Your task to perform on an android device: View the shopping cart on ebay. Add bose soundlink to the cart on ebay Image 0: 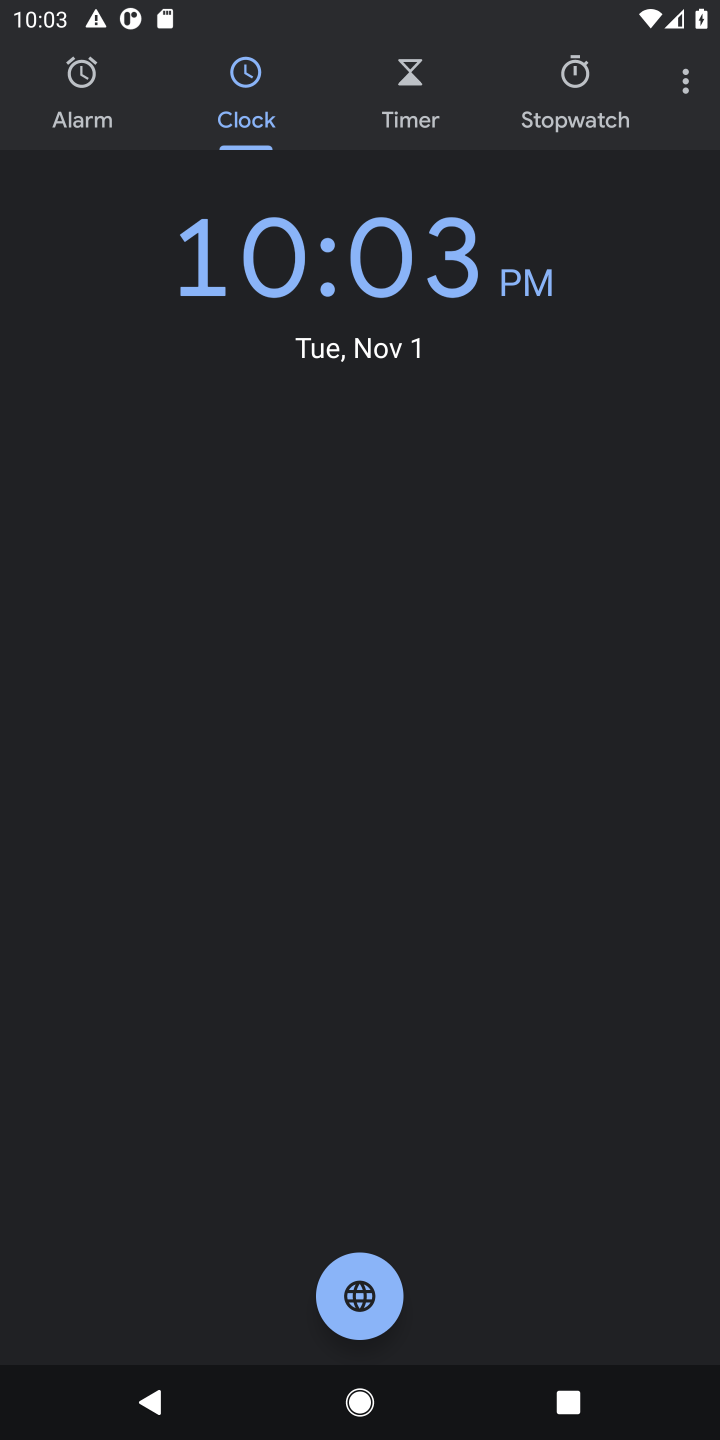
Step 0: press home button
Your task to perform on an android device: View the shopping cart on ebay. Add bose soundlink to the cart on ebay Image 1: 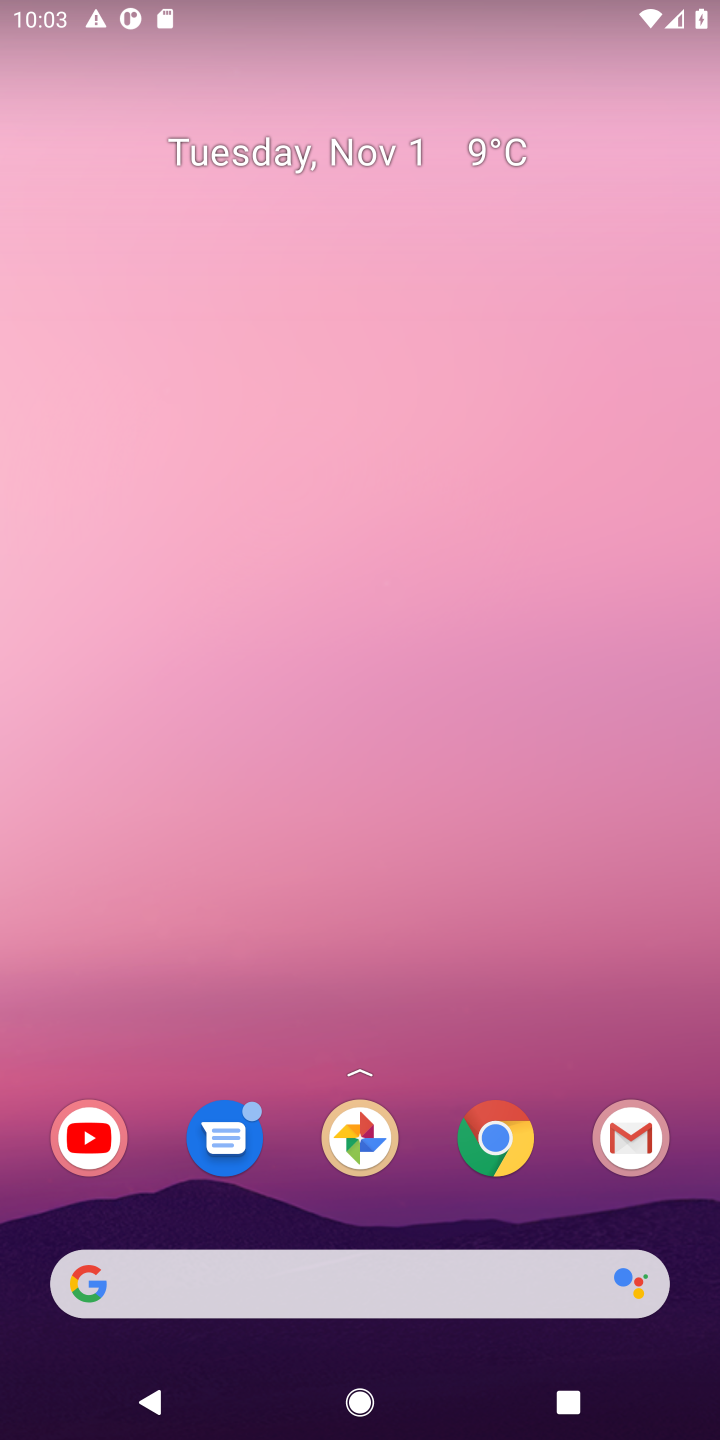
Step 1: drag from (449, 987) to (548, 238)
Your task to perform on an android device: View the shopping cart on ebay. Add bose soundlink to the cart on ebay Image 2: 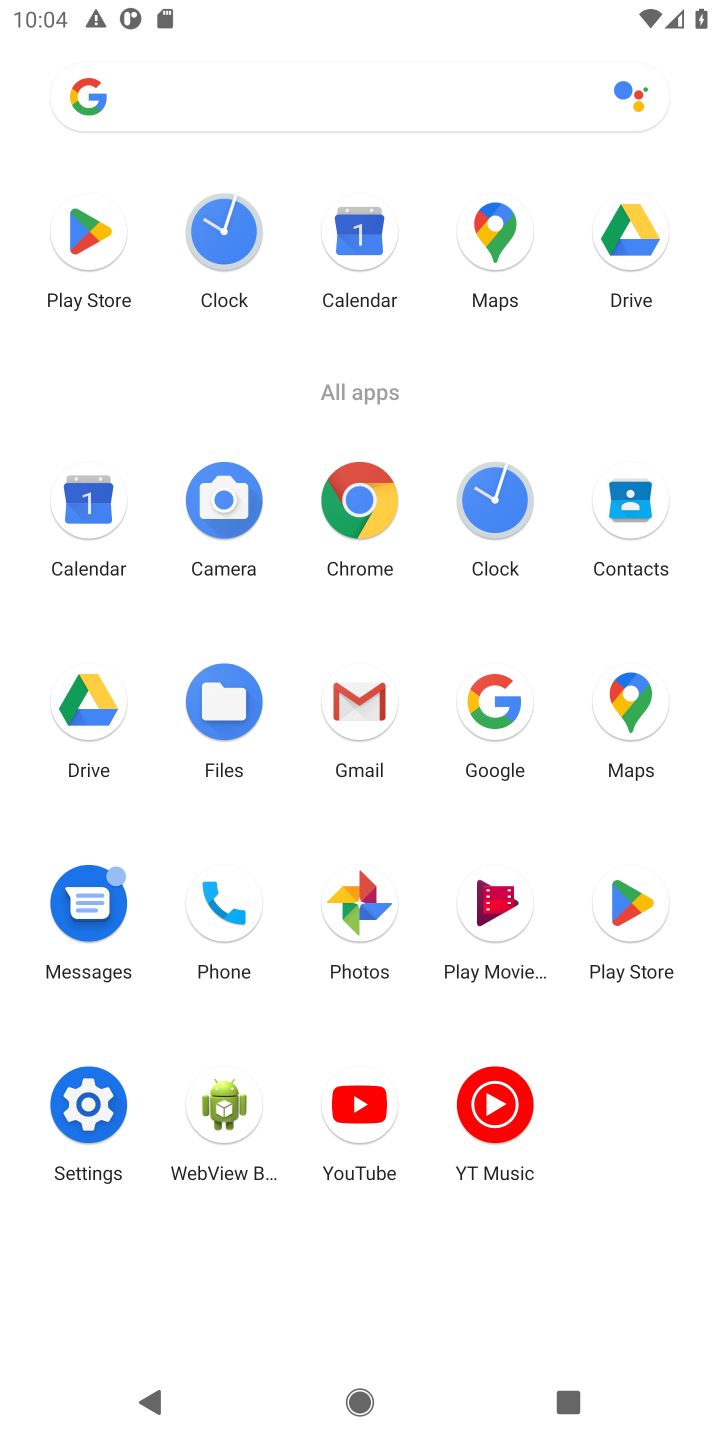
Step 2: click (346, 488)
Your task to perform on an android device: View the shopping cart on ebay. Add bose soundlink to the cart on ebay Image 3: 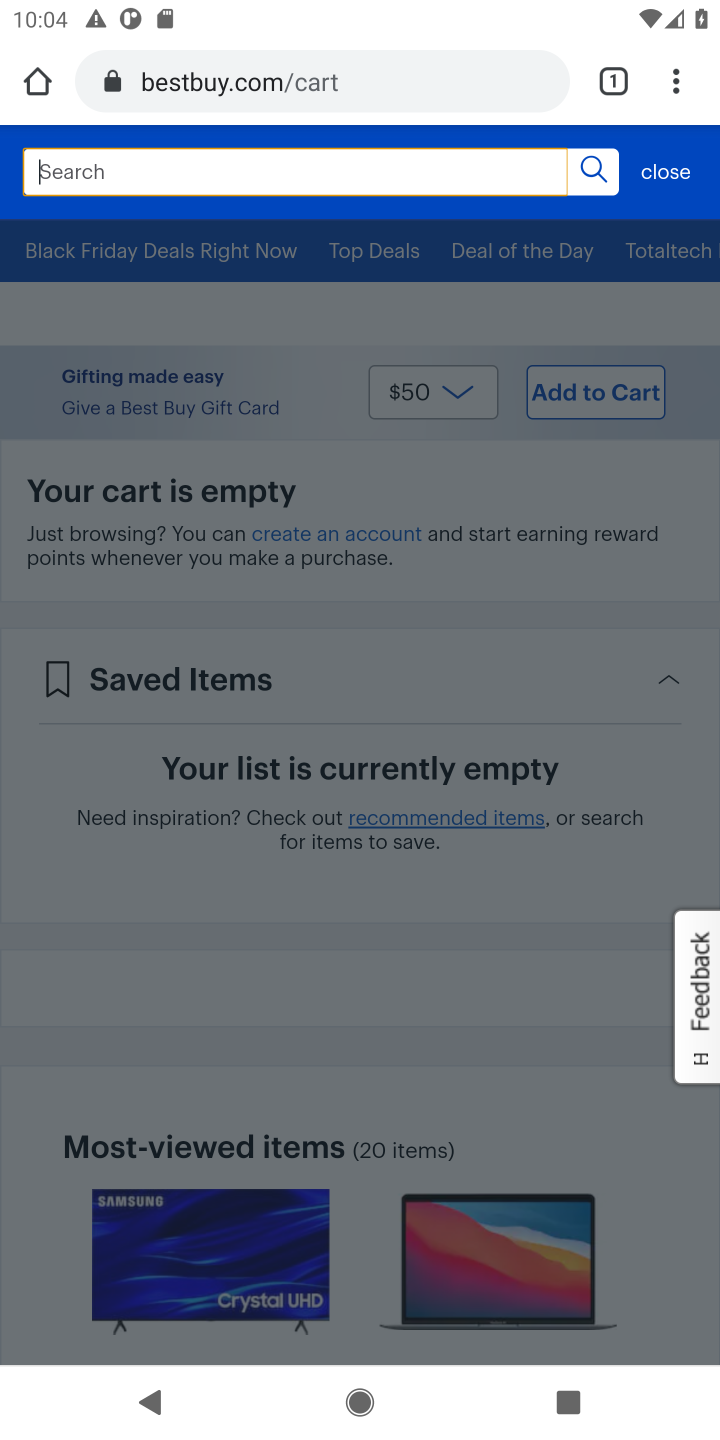
Step 3: click (239, 91)
Your task to perform on an android device: View the shopping cart on ebay. Add bose soundlink to the cart on ebay Image 4: 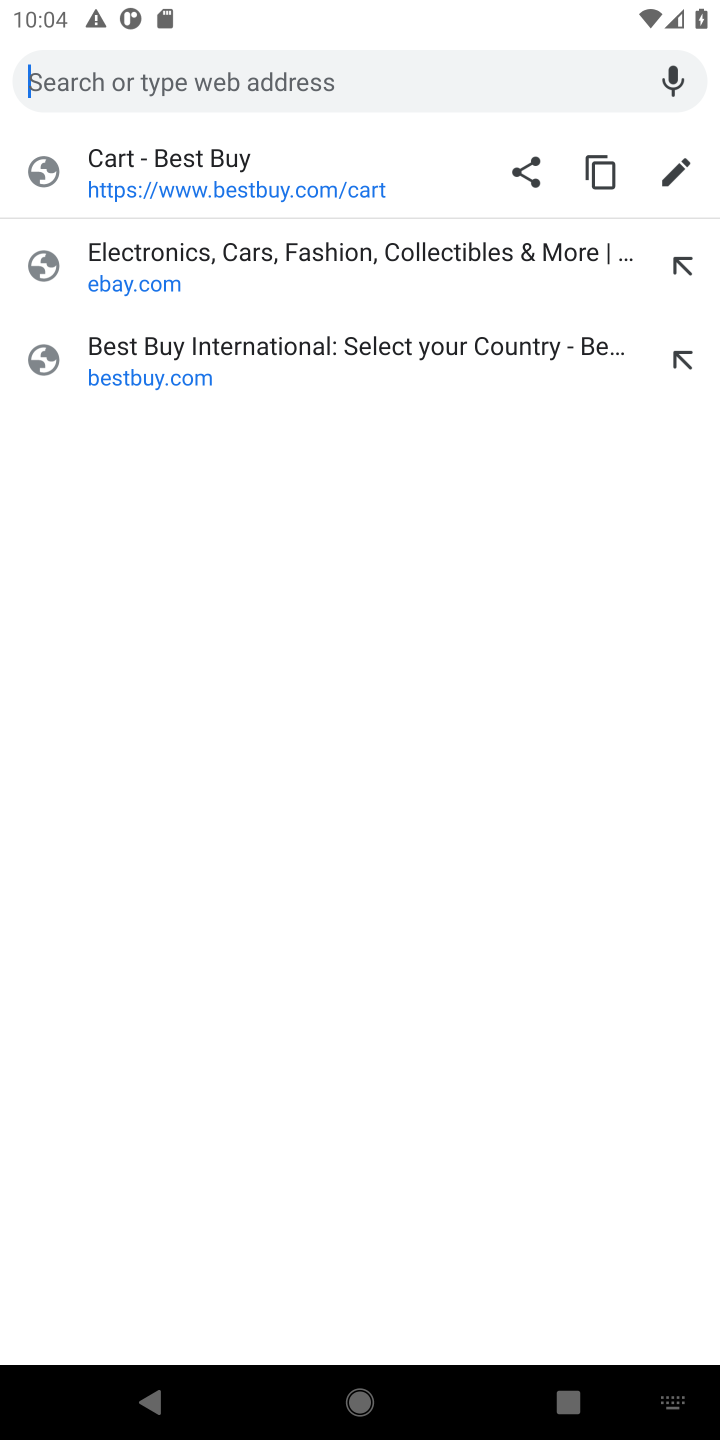
Step 4: type "ebay"
Your task to perform on an android device: View the shopping cart on ebay. Add bose soundlink to the cart on ebay Image 5: 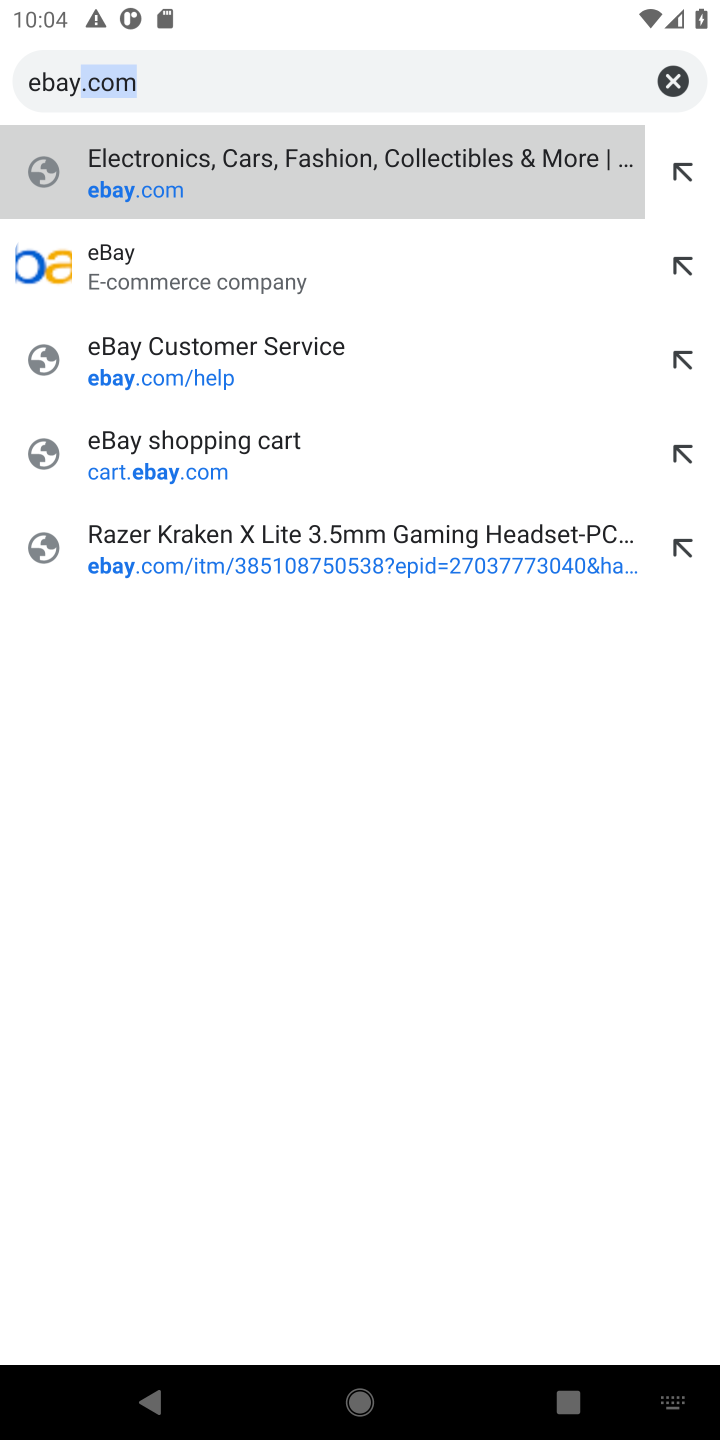
Step 5: click (203, 192)
Your task to perform on an android device: View the shopping cart on ebay. Add bose soundlink to the cart on ebay Image 6: 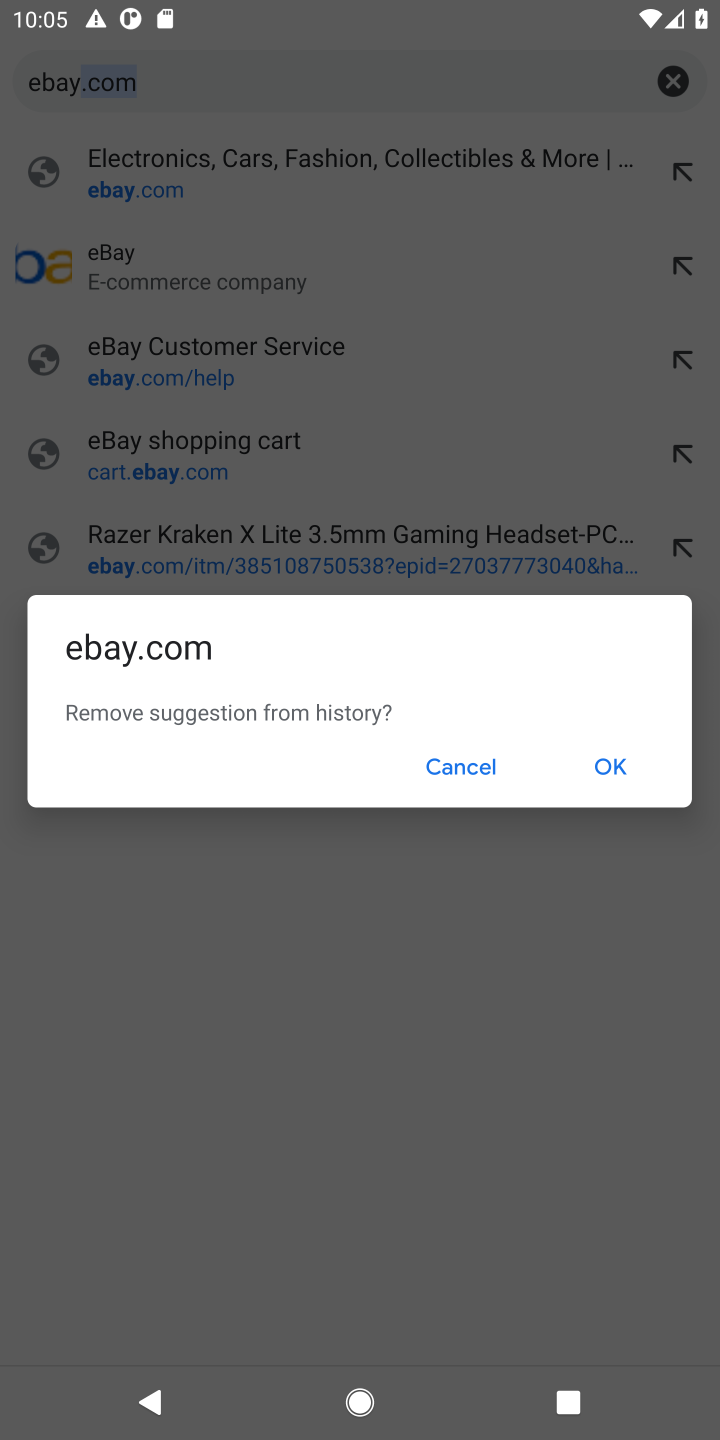
Step 6: click (455, 781)
Your task to perform on an android device: View the shopping cart on ebay. Add bose soundlink to the cart on ebay Image 7: 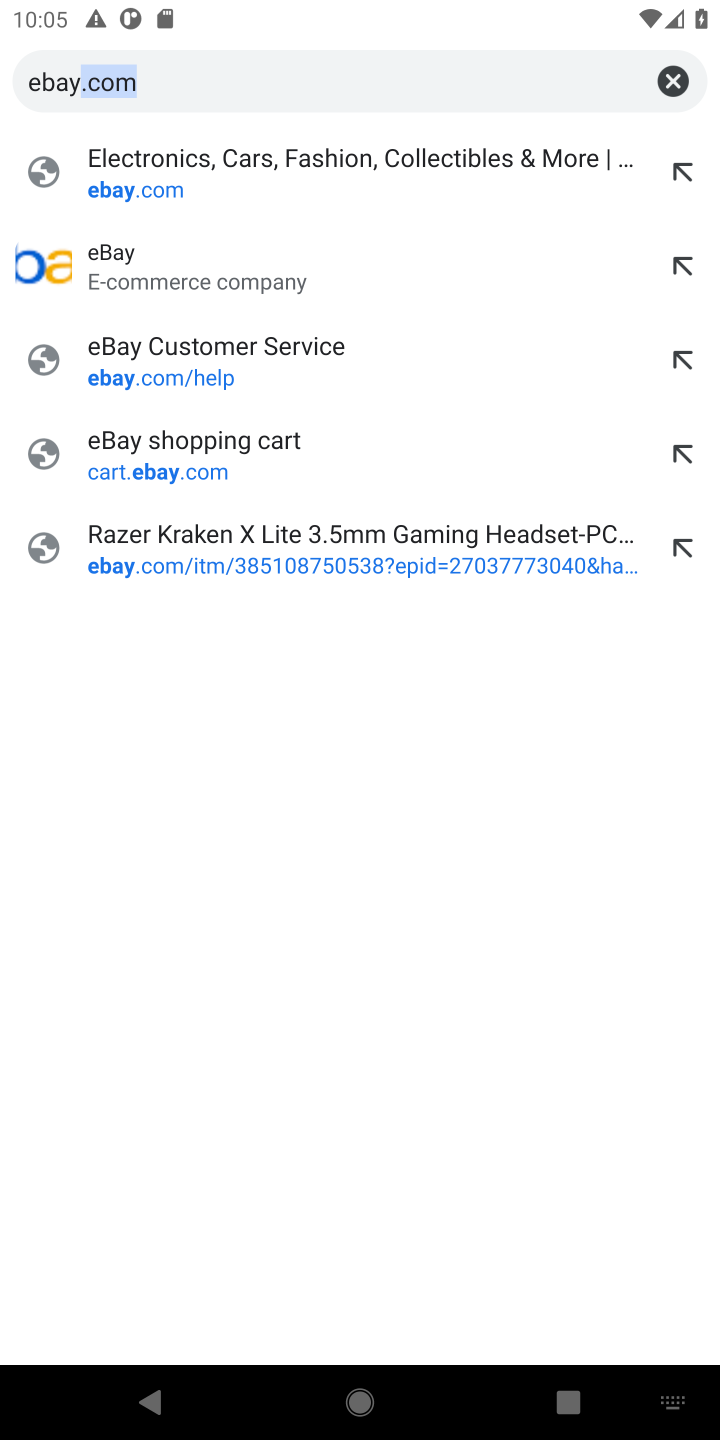
Step 7: click (189, 257)
Your task to perform on an android device: View the shopping cart on ebay. Add bose soundlink to the cart on ebay Image 8: 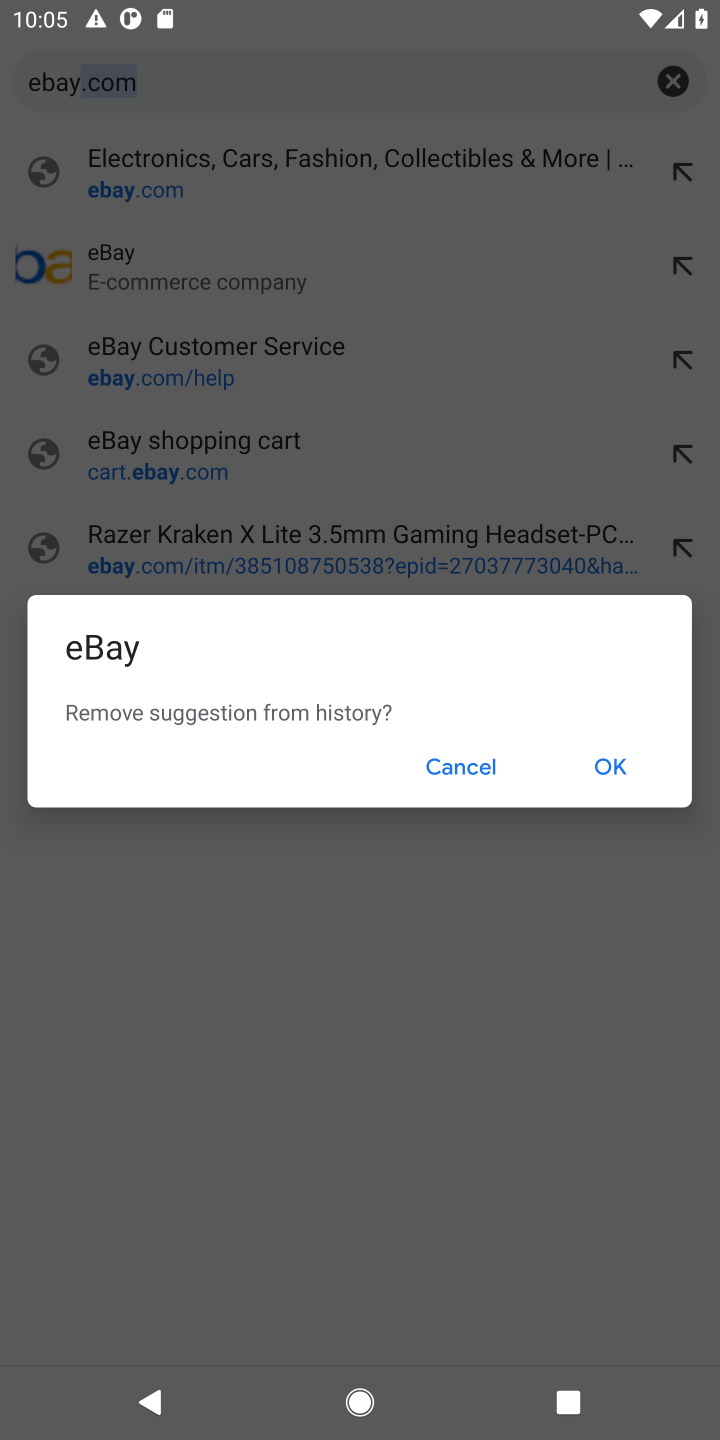
Step 8: click (472, 762)
Your task to perform on an android device: View the shopping cart on ebay. Add bose soundlink to the cart on ebay Image 9: 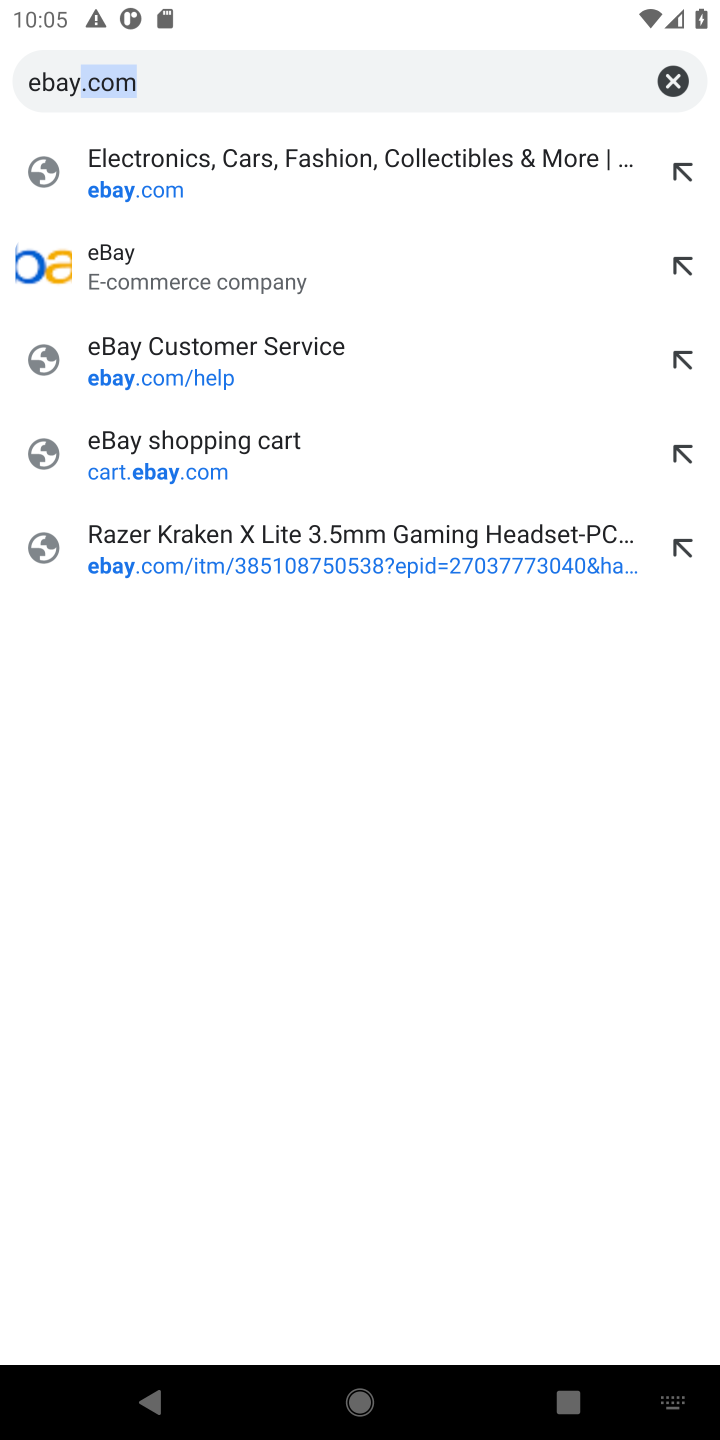
Step 9: click (142, 278)
Your task to perform on an android device: View the shopping cart on ebay. Add bose soundlink to the cart on ebay Image 10: 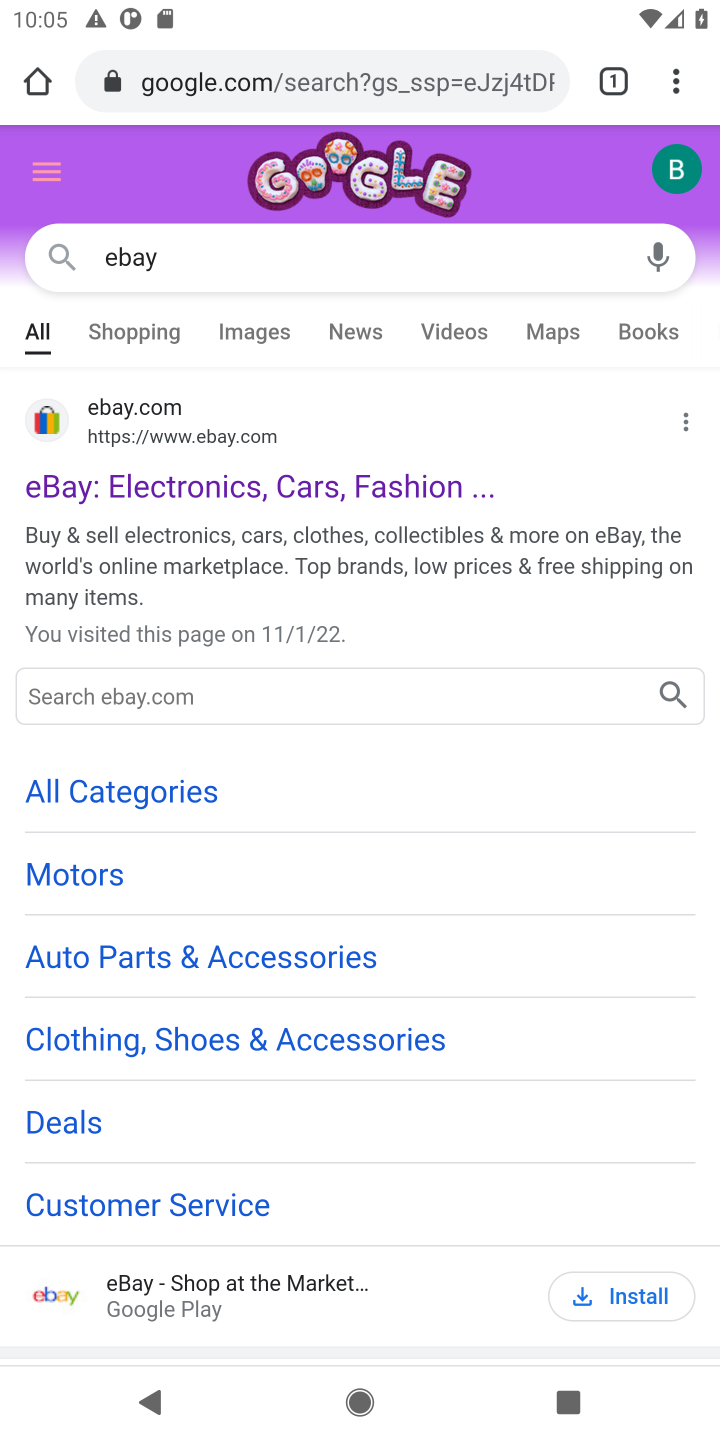
Step 10: click (131, 481)
Your task to perform on an android device: View the shopping cart on ebay. Add bose soundlink to the cart on ebay Image 11: 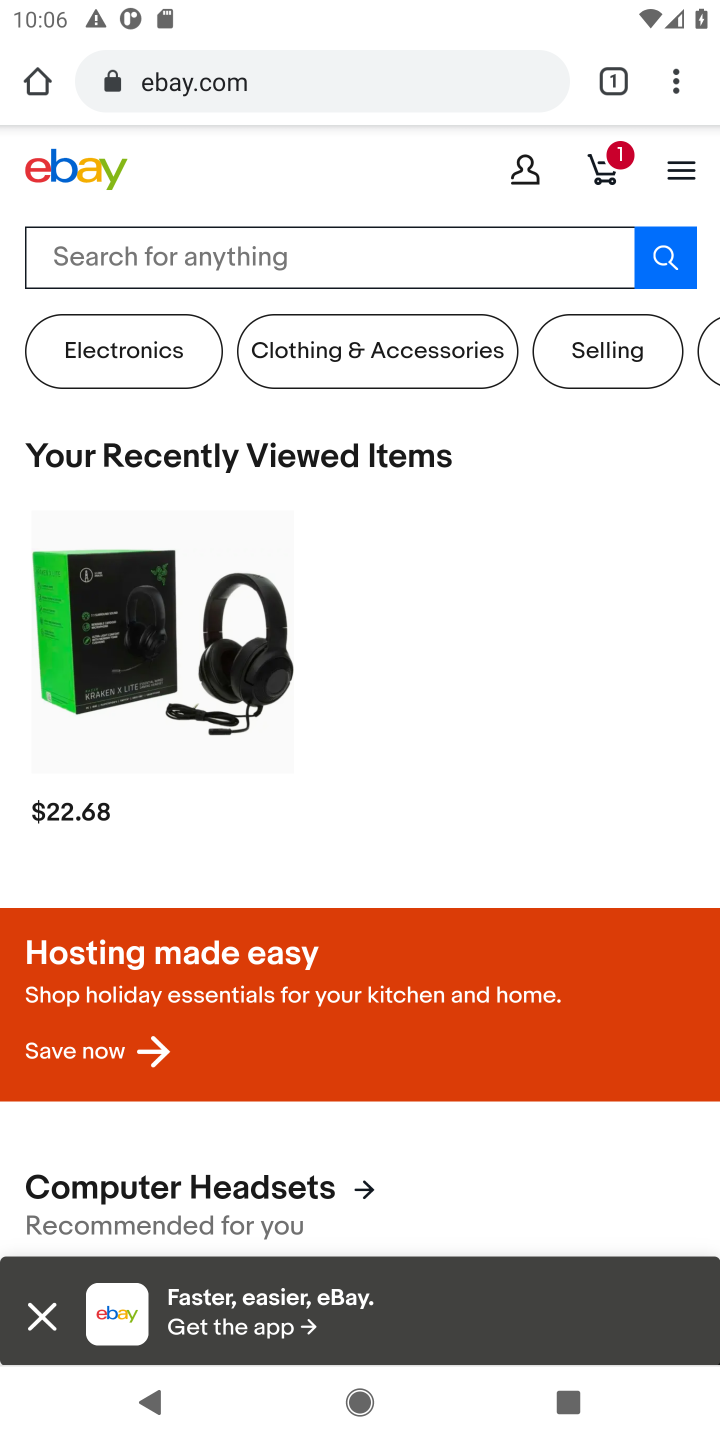
Step 11: click (170, 257)
Your task to perform on an android device: View the shopping cart on ebay. Add bose soundlink to the cart on ebay Image 12: 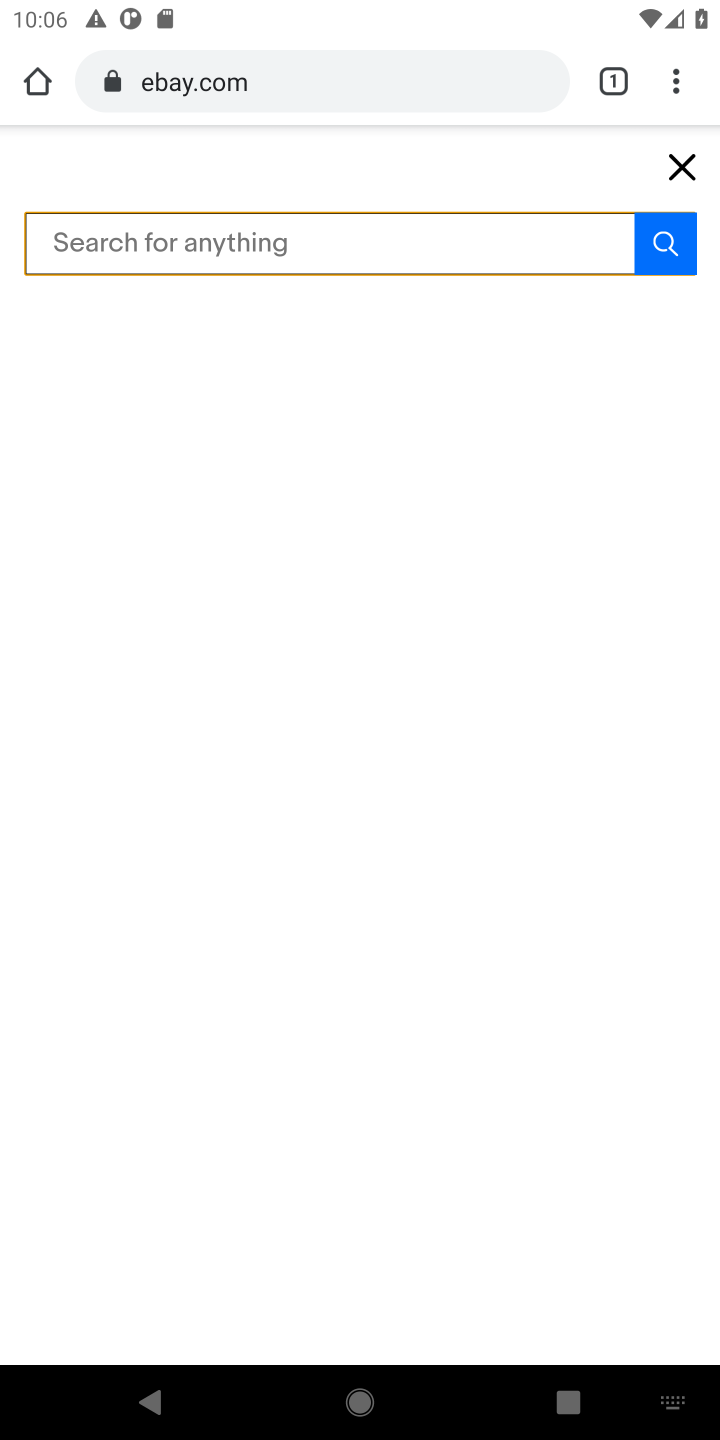
Step 12: type "bose soundlink"
Your task to perform on an android device: View the shopping cart on ebay. Add bose soundlink to the cart on ebay Image 13: 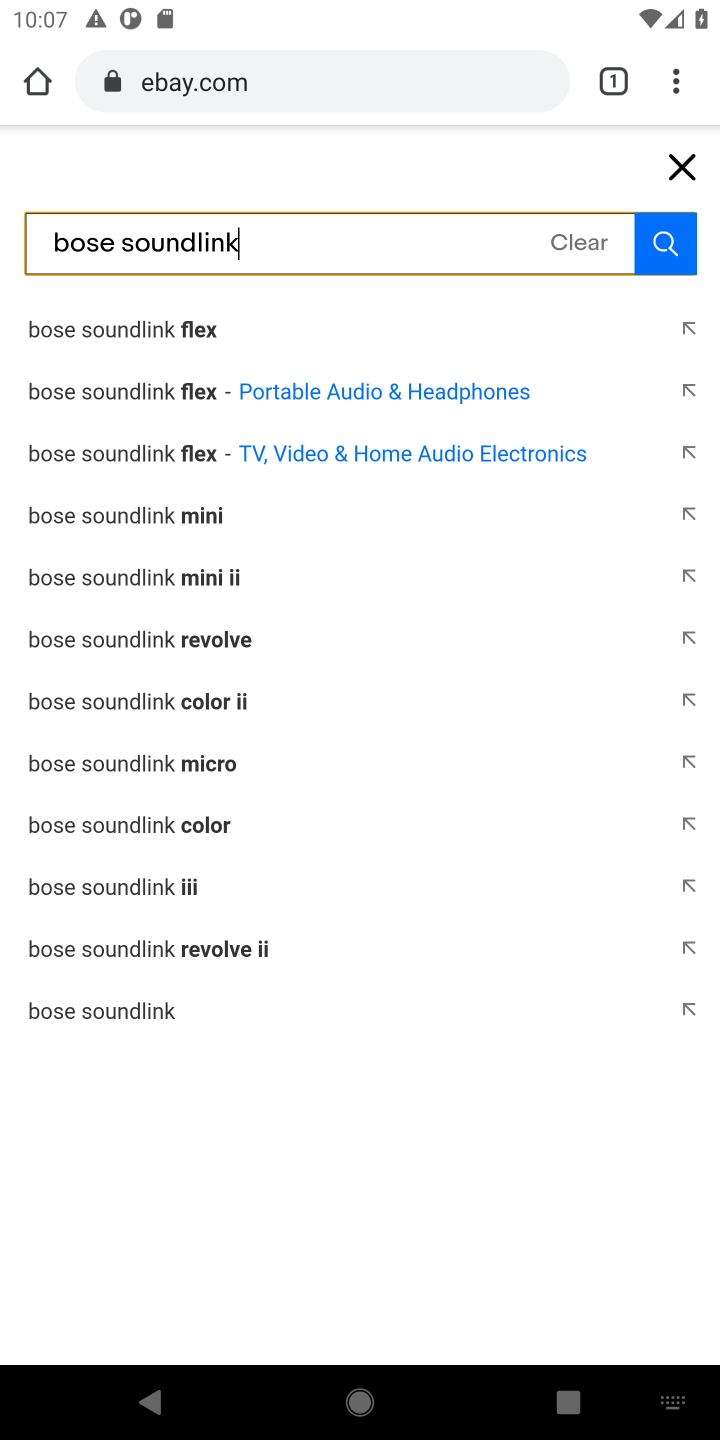
Step 13: click (389, 394)
Your task to perform on an android device: View the shopping cart on ebay. Add bose soundlink to the cart on ebay Image 14: 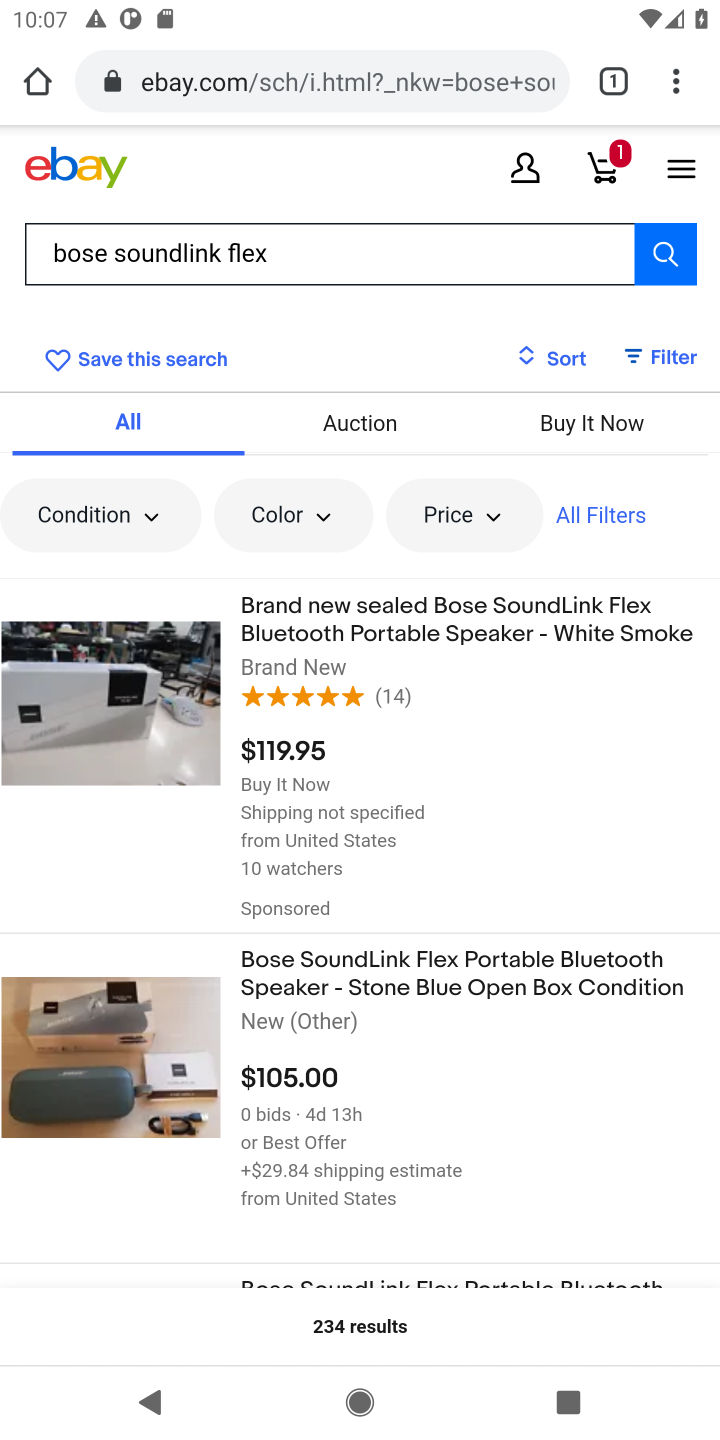
Step 14: click (350, 659)
Your task to perform on an android device: View the shopping cart on ebay. Add bose soundlink to the cart on ebay Image 15: 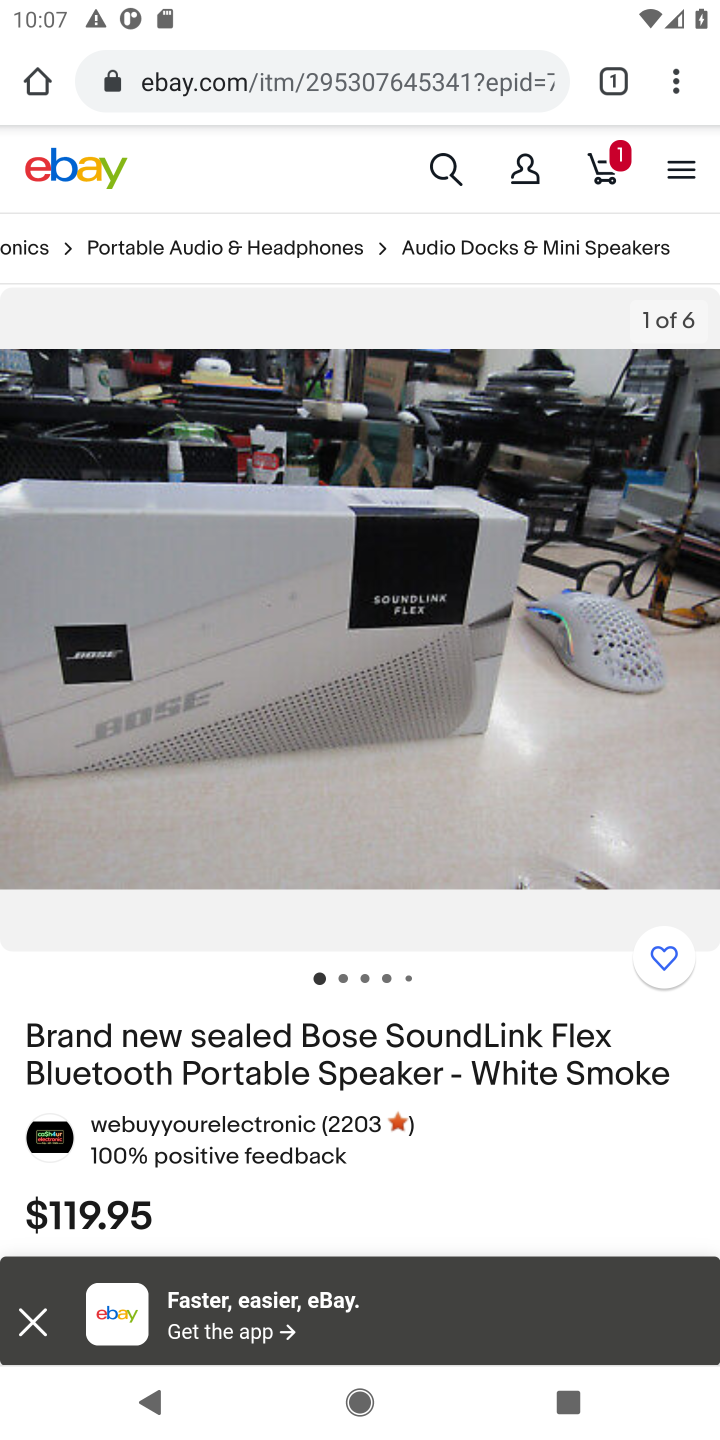
Step 15: drag from (423, 1092) to (449, 207)
Your task to perform on an android device: View the shopping cart on ebay. Add bose soundlink to the cart on ebay Image 16: 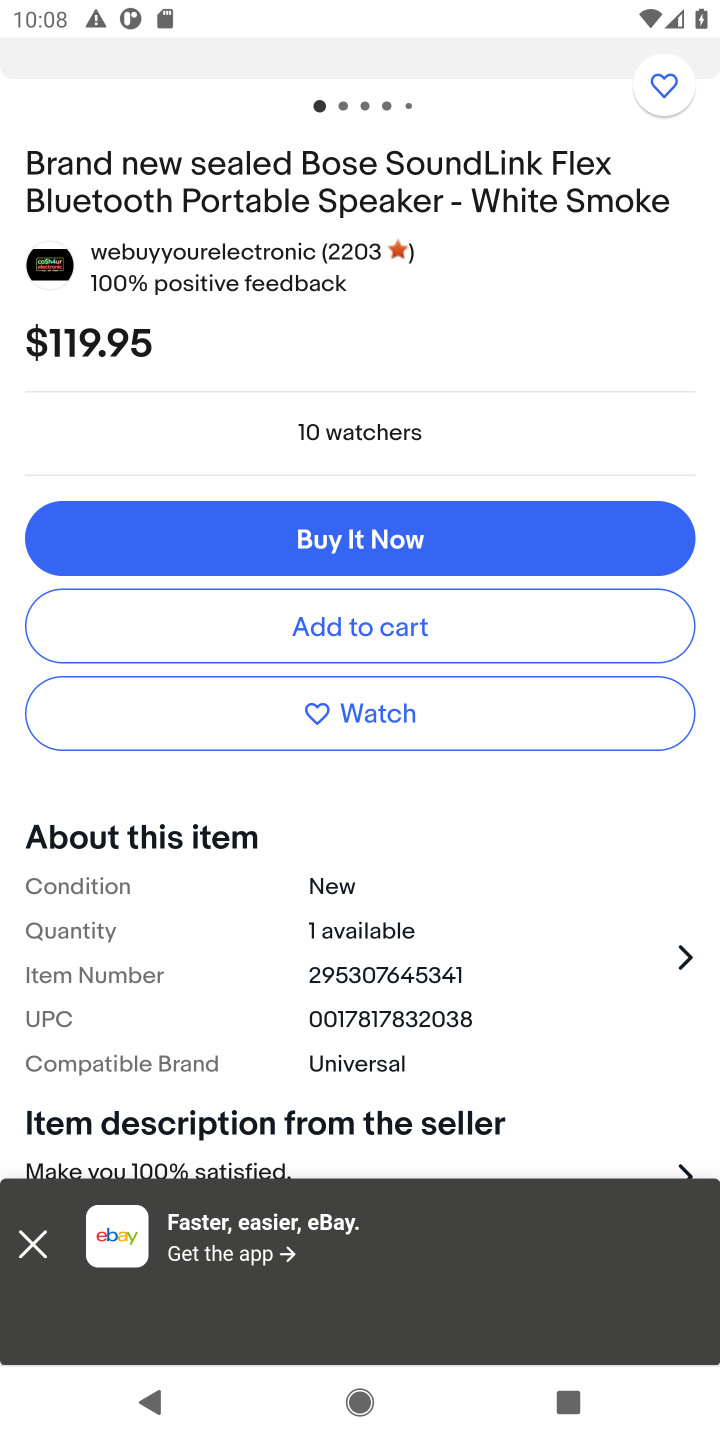
Step 16: click (384, 623)
Your task to perform on an android device: View the shopping cart on ebay. Add bose soundlink to the cart on ebay Image 17: 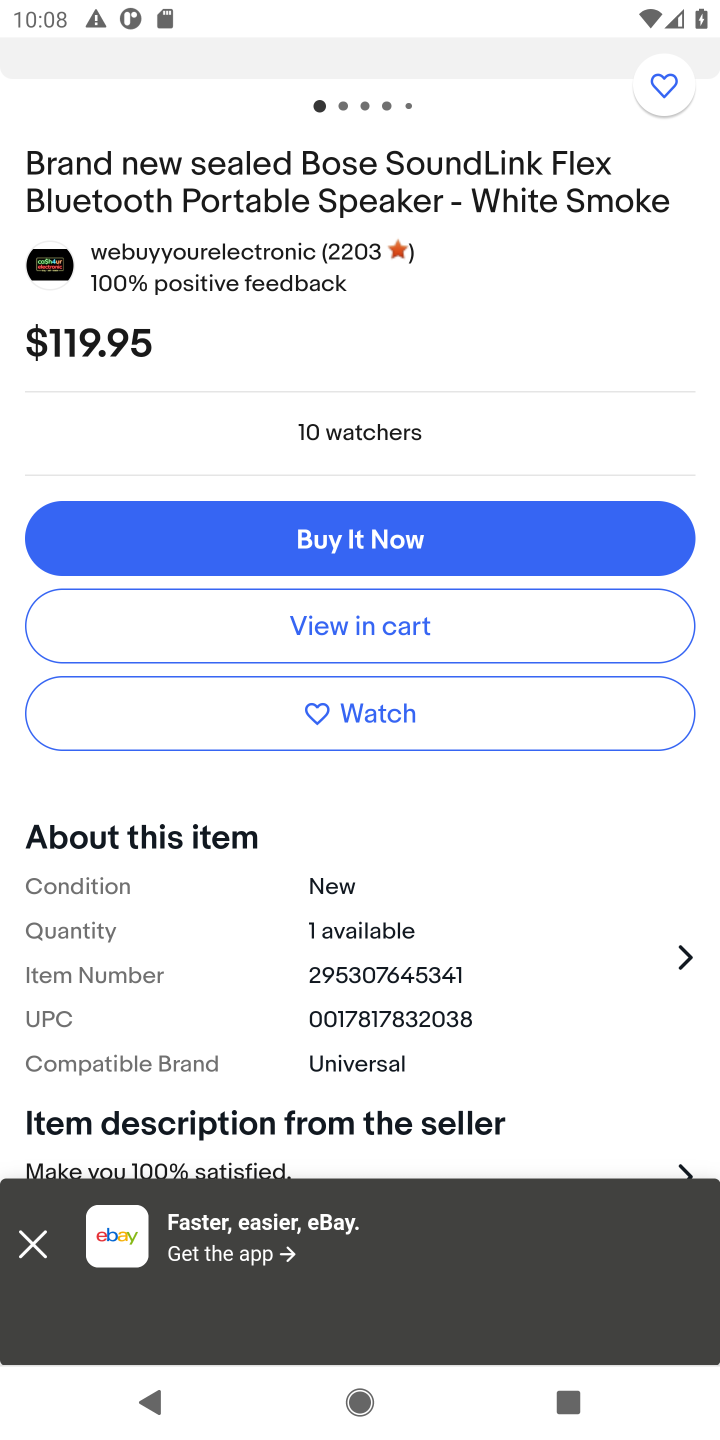
Step 17: click (397, 632)
Your task to perform on an android device: View the shopping cart on ebay. Add bose soundlink to the cart on ebay Image 18: 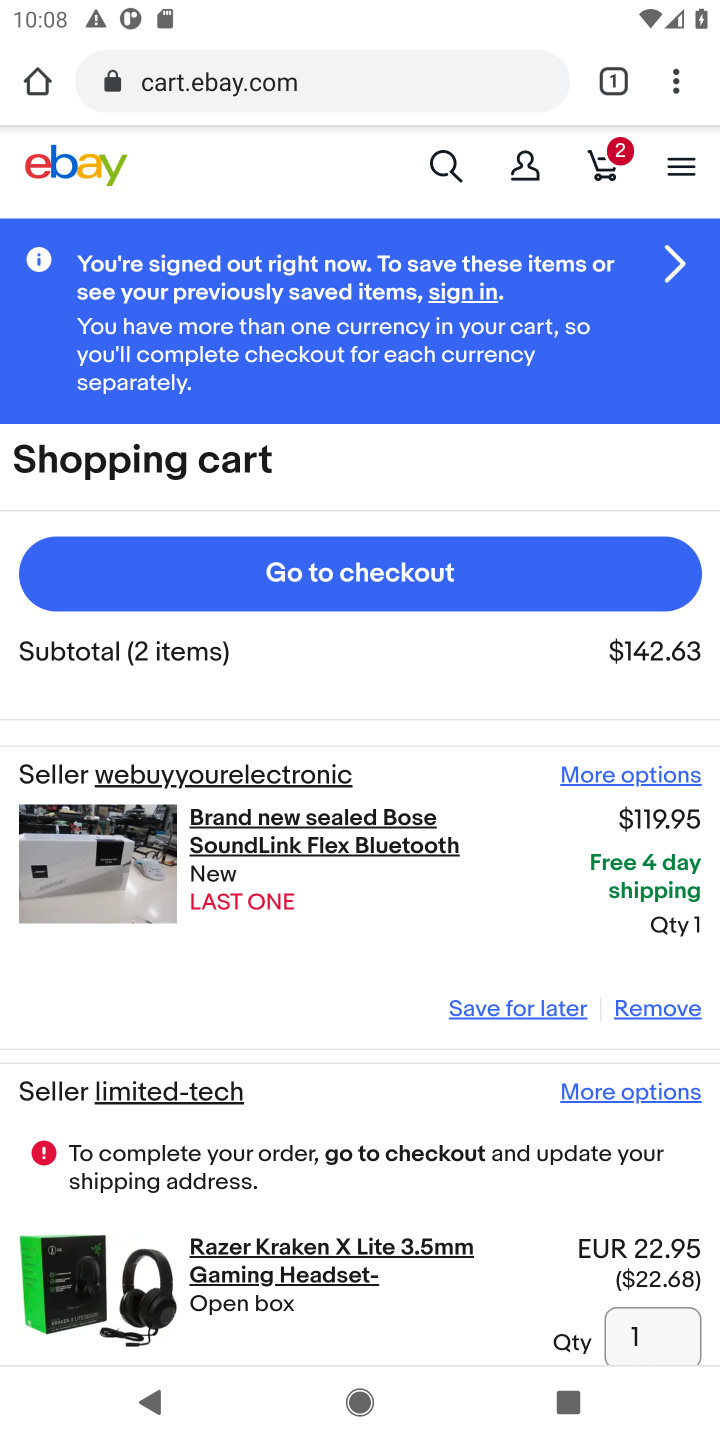
Step 18: task complete